Your task to perform on an android device: open a new tab in the chrome app Image 0: 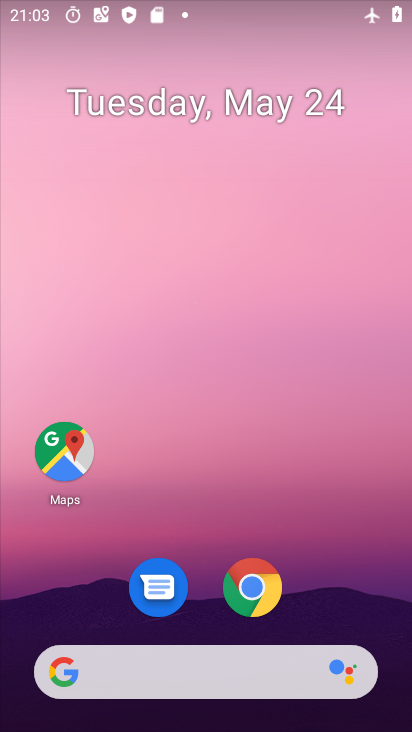
Step 0: drag from (306, 562) to (255, 25)
Your task to perform on an android device: open a new tab in the chrome app Image 1: 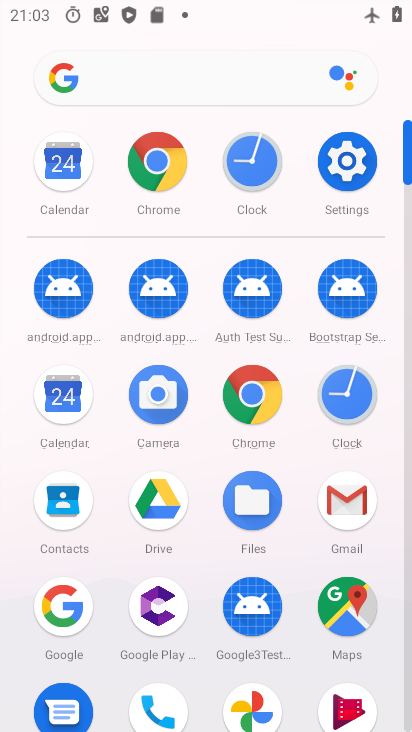
Step 1: drag from (10, 553) to (15, 203)
Your task to perform on an android device: open a new tab in the chrome app Image 2: 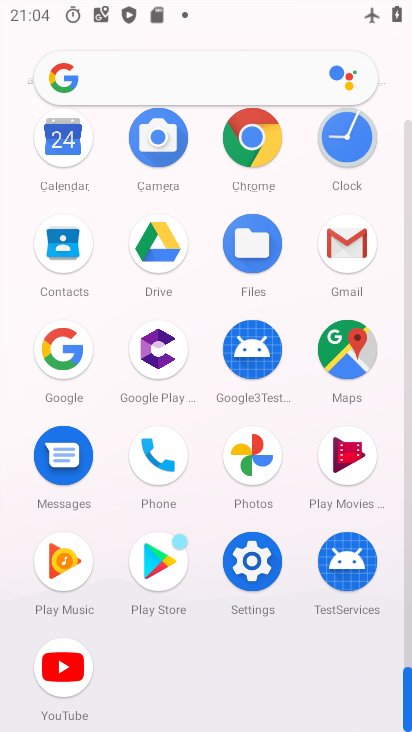
Step 2: click (251, 132)
Your task to perform on an android device: open a new tab in the chrome app Image 3: 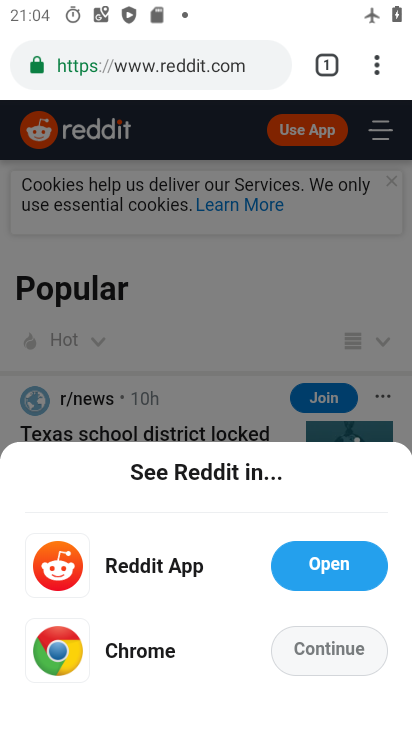
Step 3: task complete